Your task to perform on an android device: turn off location Image 0: 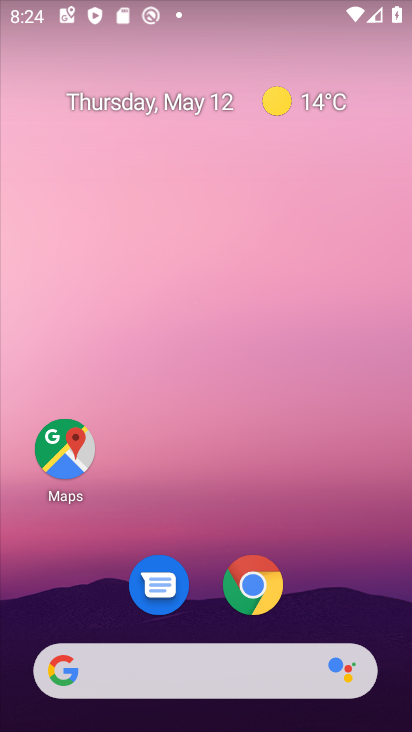
Step 0: drag from (303, 484) to (230, 11)
Your task to perform on an android device: turn off location Image 1: 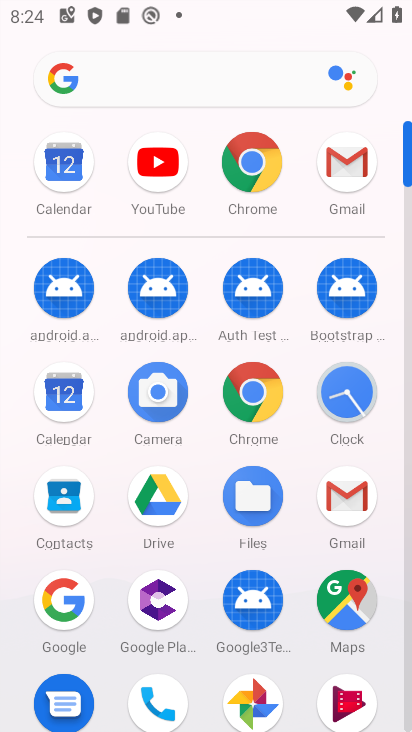
Step 1: drag from (208, 473) to (197, 166)
Your task to perform on an android device: turn off location Image 2: 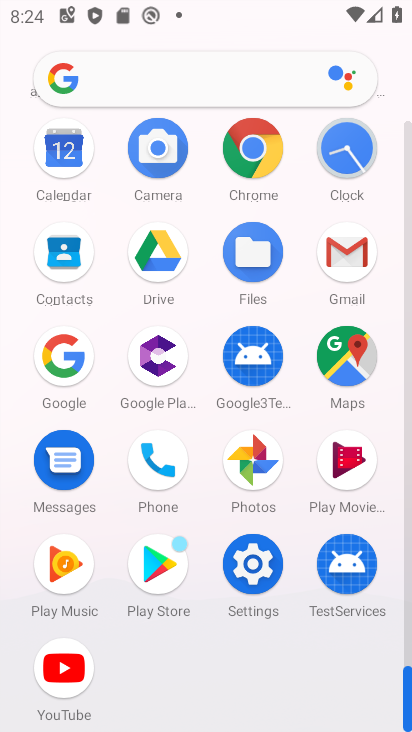
Step 2: click (259, 559)
Your task to perform on an android device: turn off location Image 3: 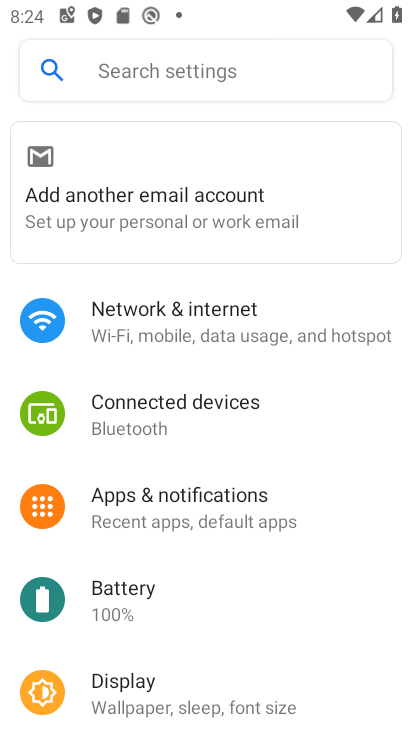
Step 3: drag from (249, 584) to (195, 125)
Your task to perform on an android device: turn off location Image 4: 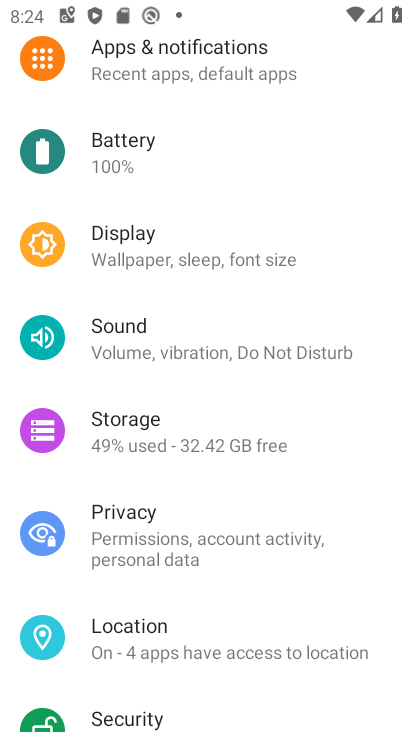
Step 4: click (267, 664)
Your task to perform on an android device: turn off location Image 5: 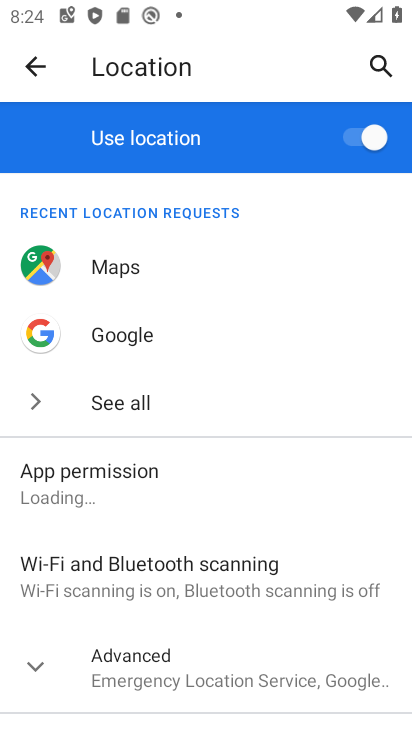
Step 5: click (350, 133)
Your task to perform on an android device: turn off location Image 6: 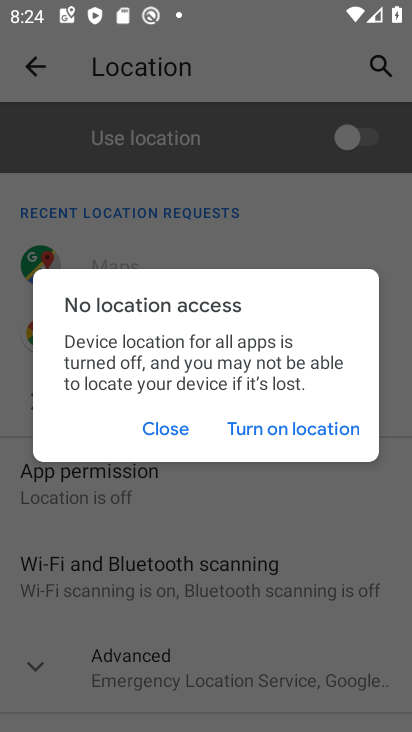
Step 6: task complete